Your task to perform on an android device: turn off location history Image 0: 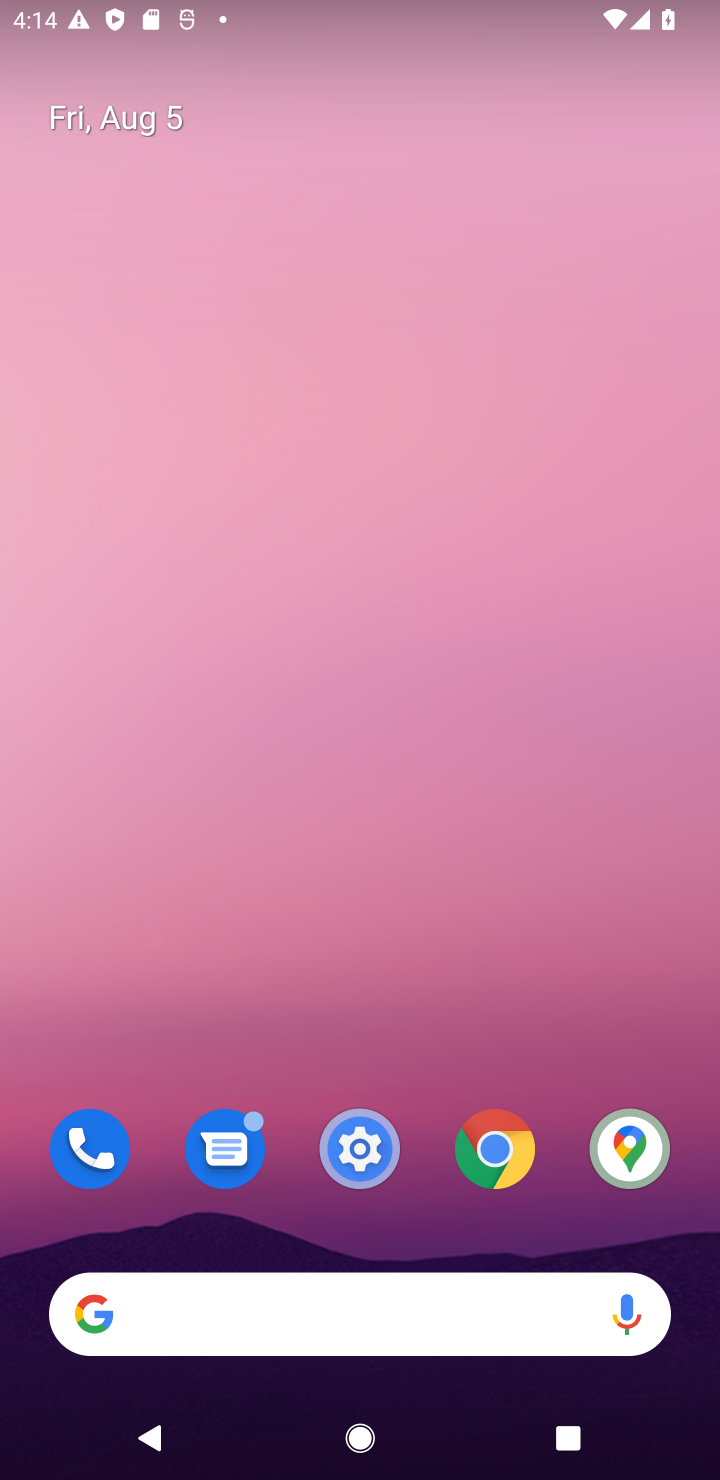
Step 0: click (350, 1161)
Your task to perform on an android device: turn off location history Image 1: 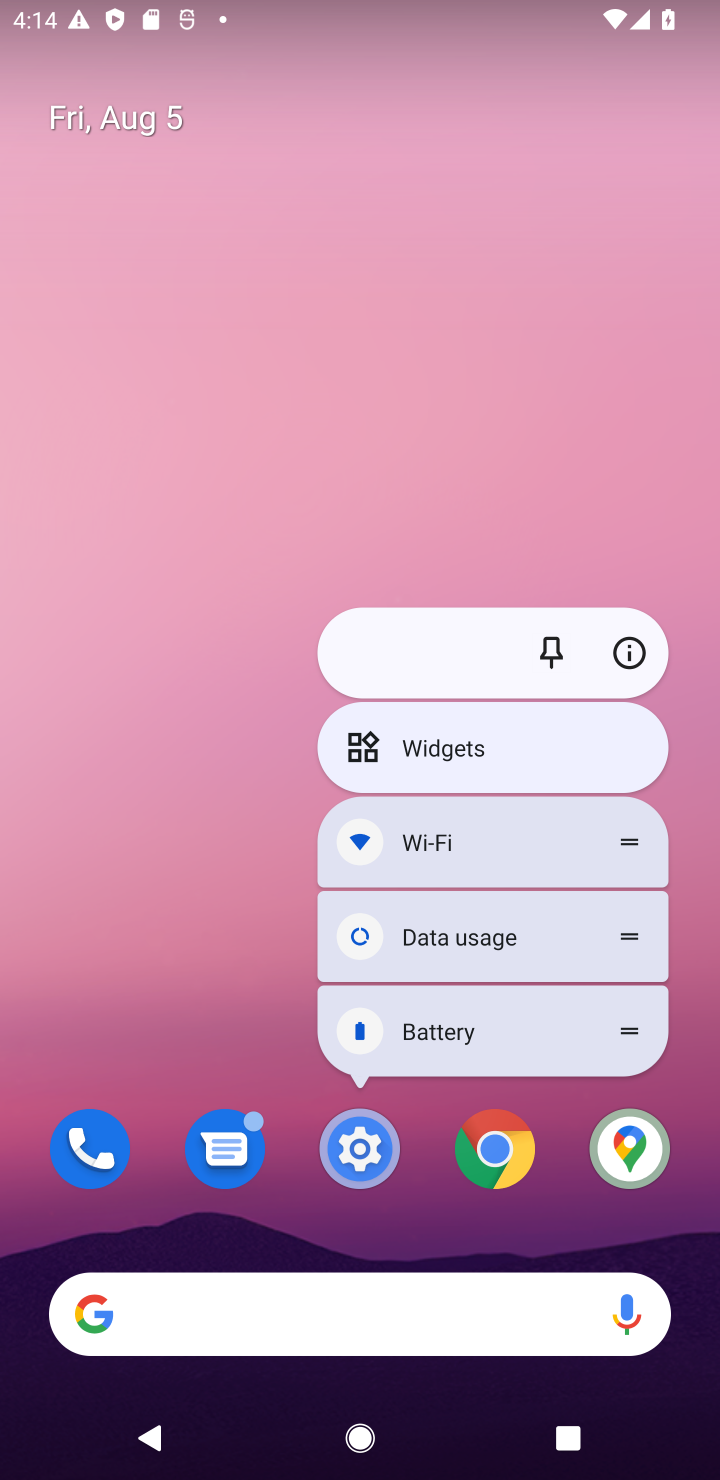
Step 1: click (352, 1153)
Your task to perform on an android device: turn off location history Image 2: 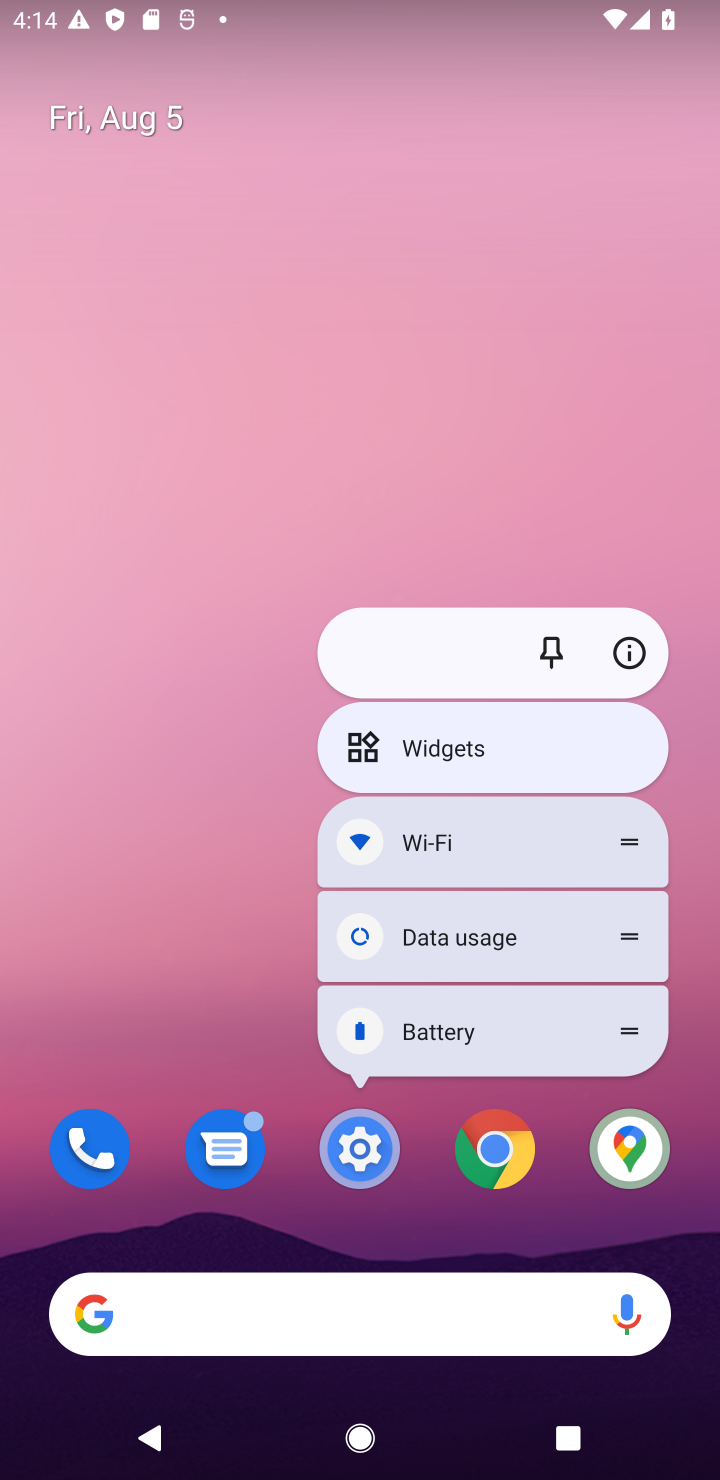
Step 2: click (356, 1151)
Your task to perform on an android device: turn off location history Image 3: 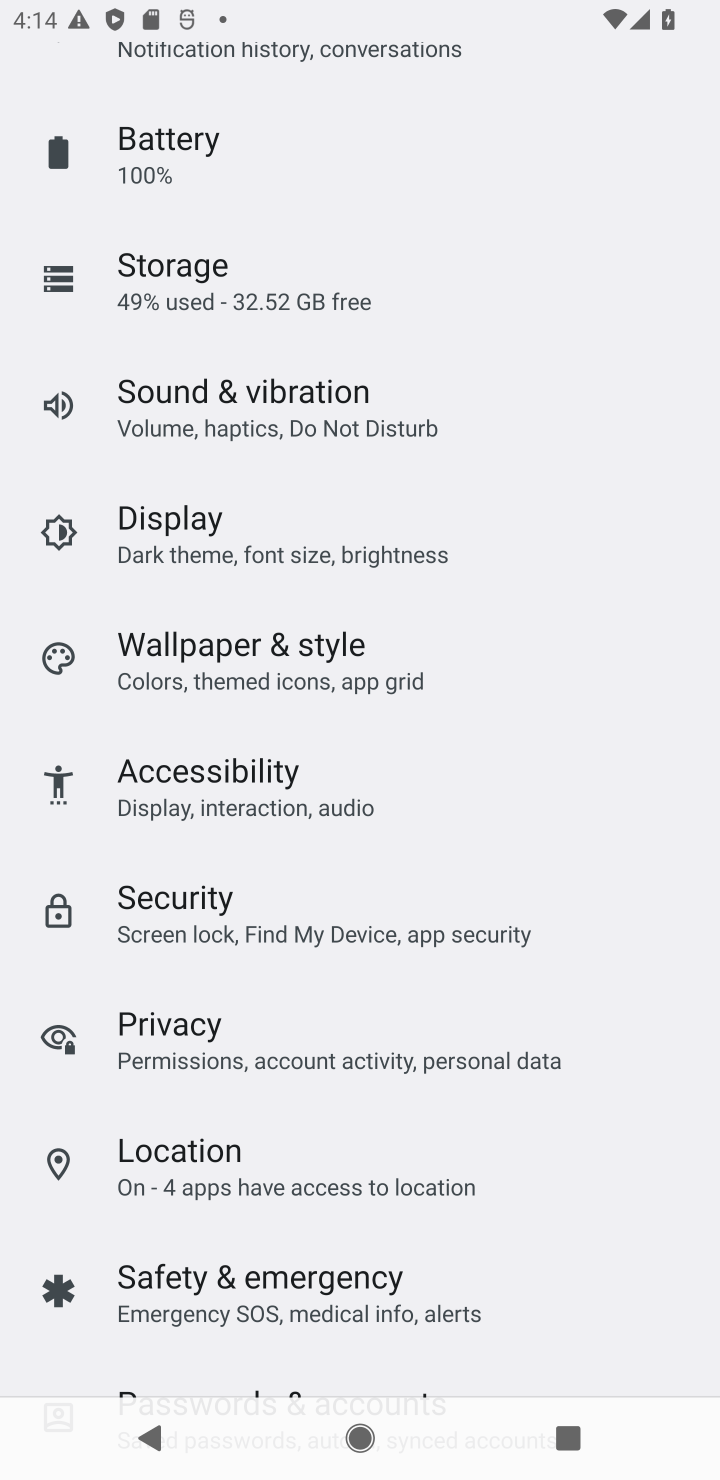
Step 3: drag from (320, 265) to (293, 1471)
Your task to perform on an android device: turn off location history Image 4: 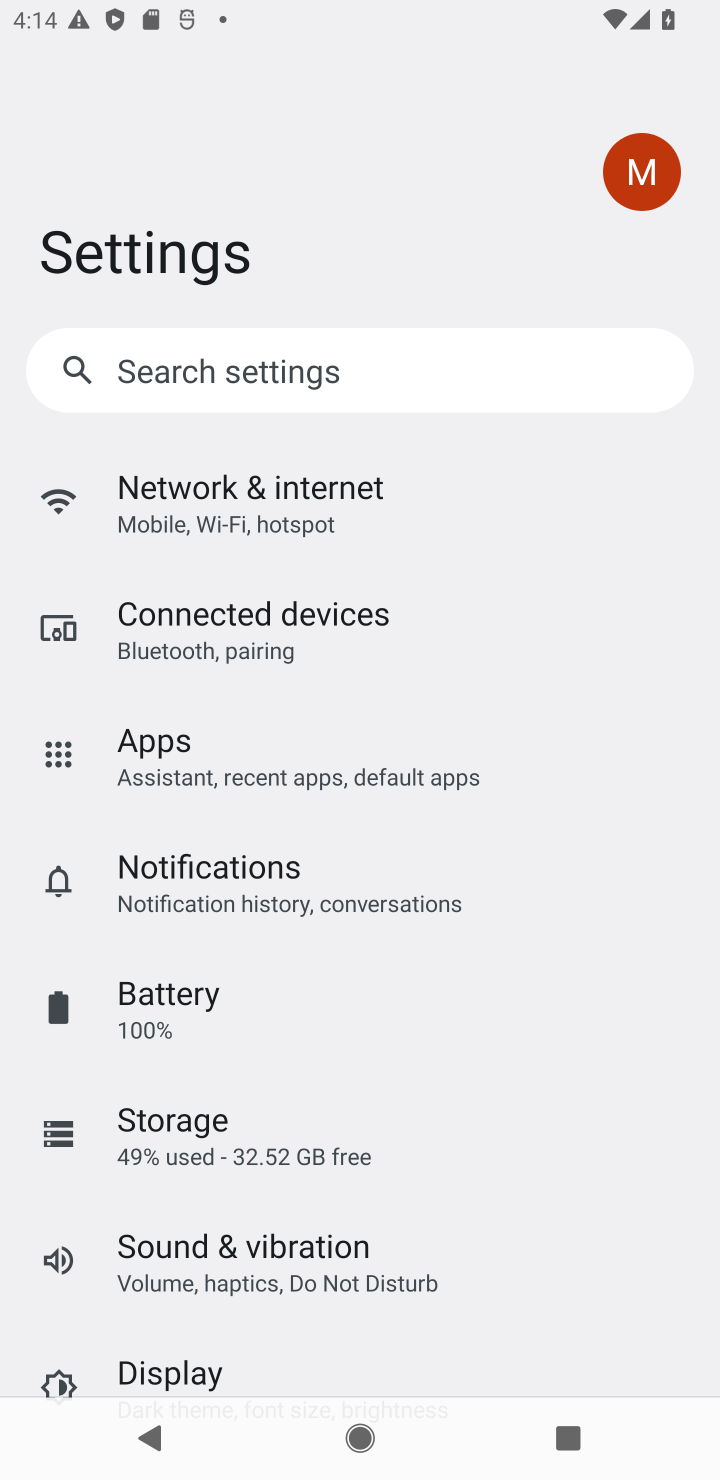
Step 4: drag from (322, 1292) to (507, 596)
Your task to perform on an android device: turn off location history Image 5: 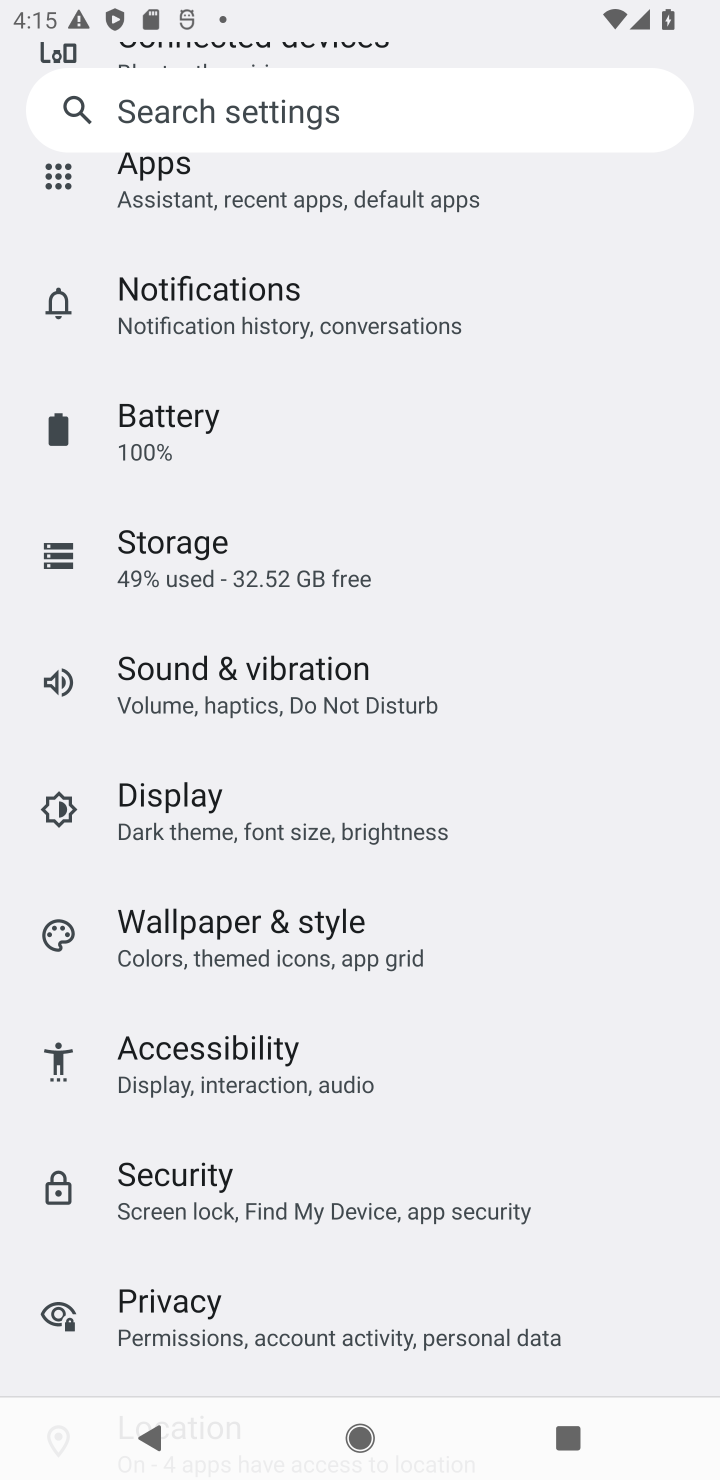
Step 5: drag from (265, 1281) to (356, 691)
Your task to perform on an android device: turn off location history Image 6: 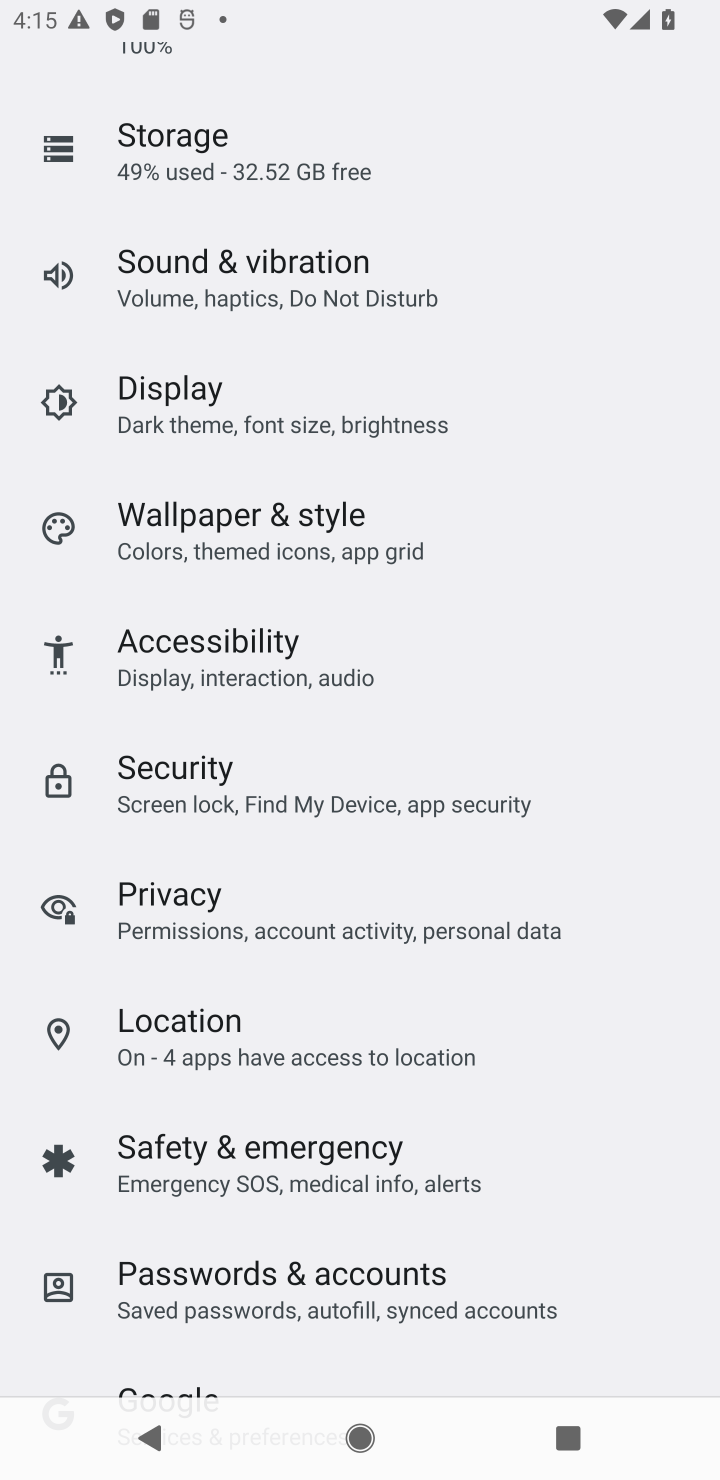
Step 6: click (215, 1022)
Your task to perform on an android device: turn off location history Image 7: 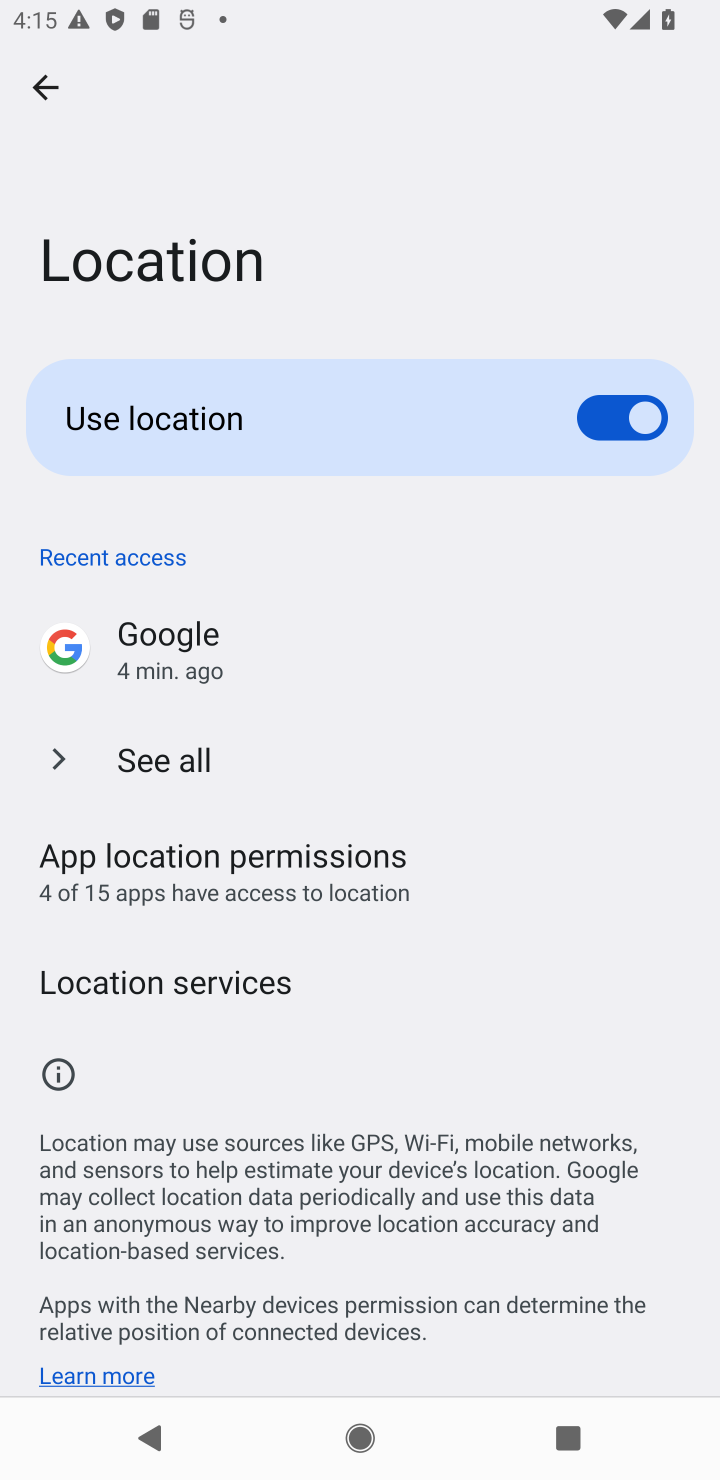
Step 7: click (224, 977)
Your task to perform on an android device: turn off location history Image 8: 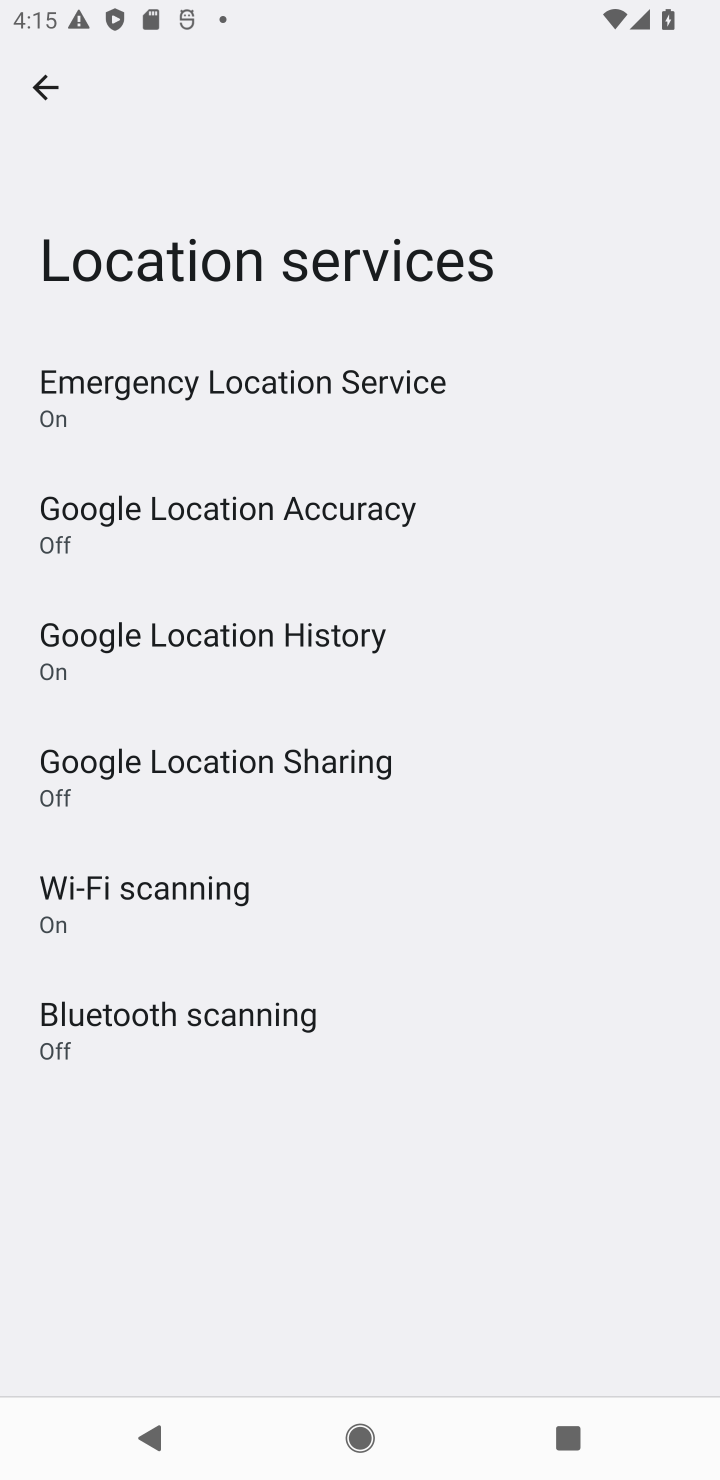
Step 8: click (226, 512)
Your task to perform on an android device: turn off location history Image 9: 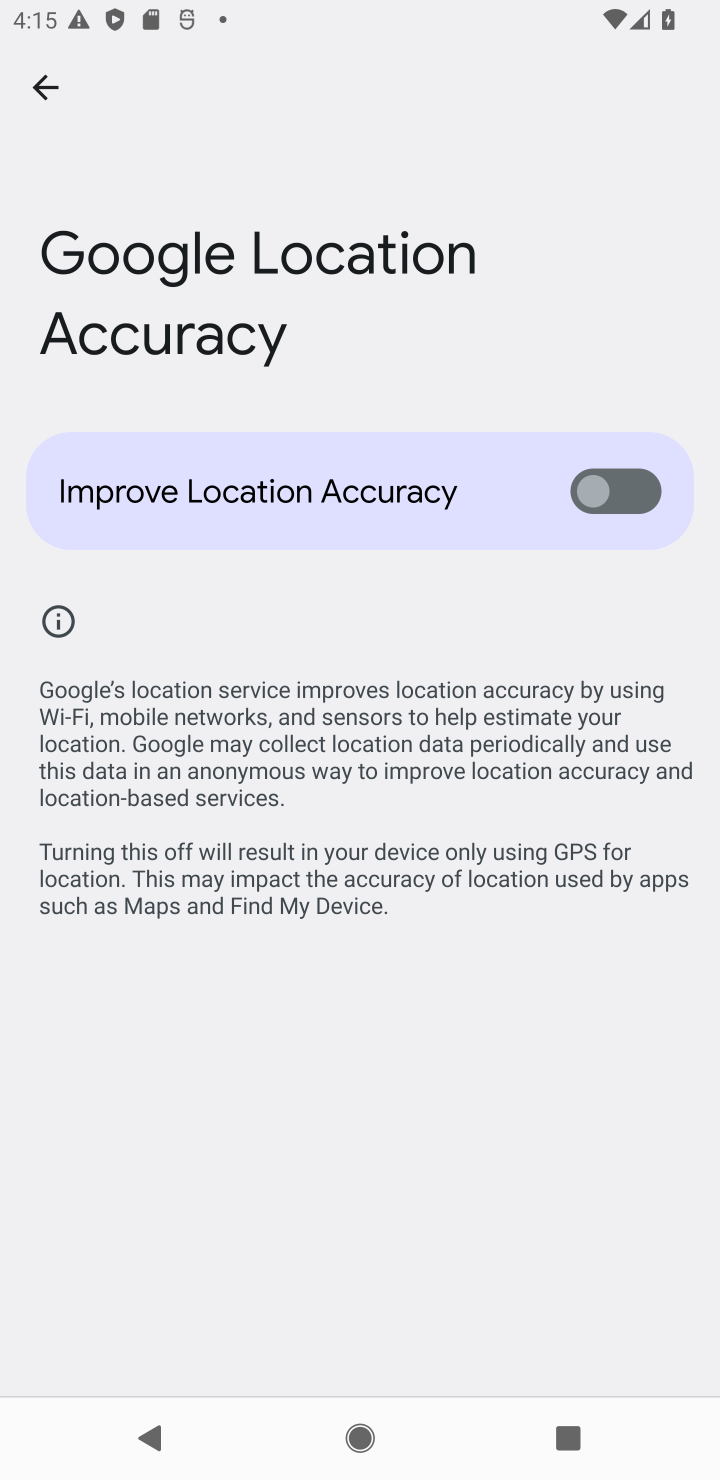
Step 9: task complete